Your task to perform on an android device: Where can I buy a nice beach tote? Image 0: 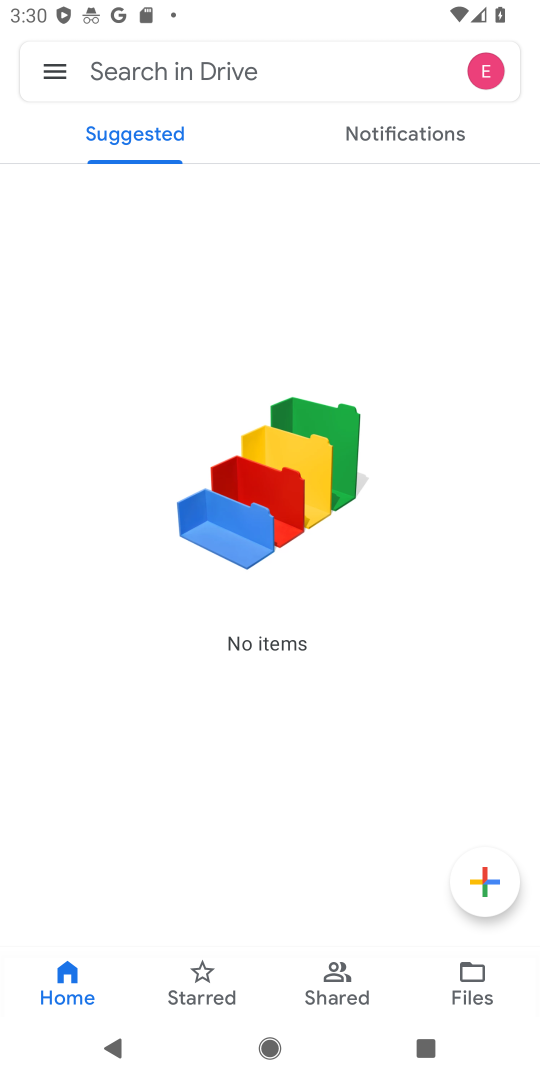
Step 0: press home button
Your task to perform on an android device: Where can I buy a nice beach tote? Image 1: 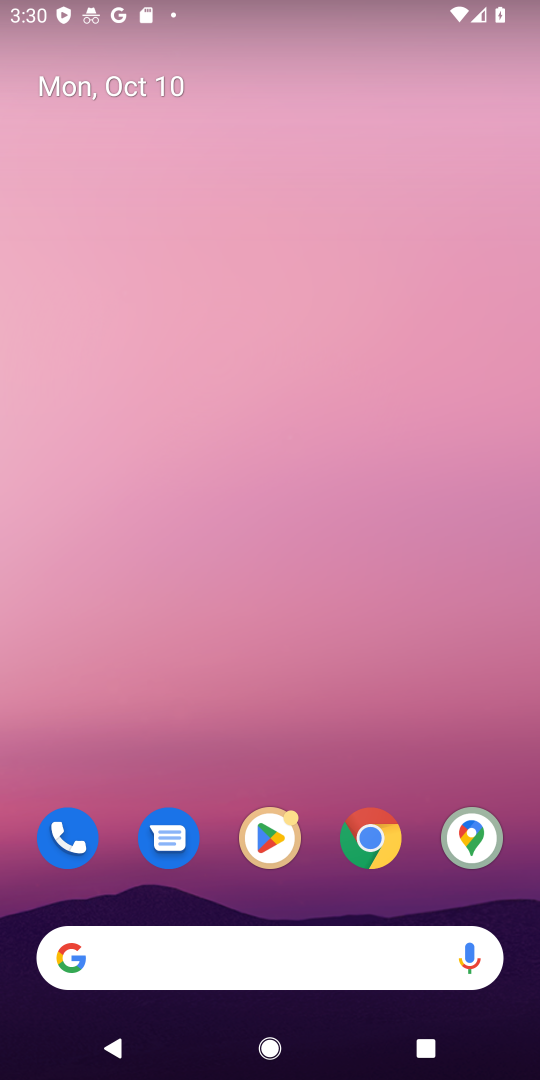
Step 1: click (301, 956)
Your task to perform on an android device: Where can I buy a nice beach tote? Image 2: 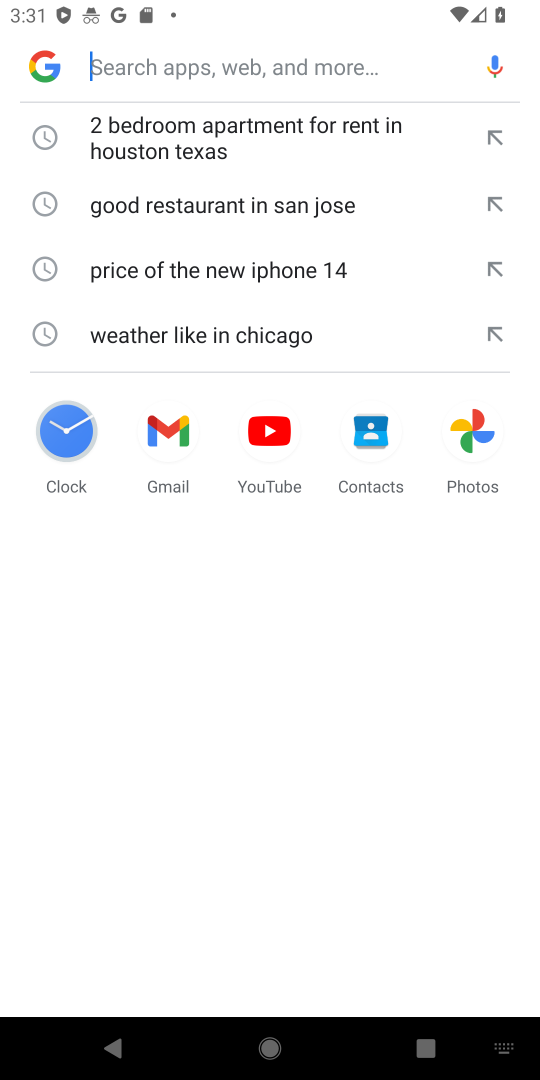
Step 2: type "buy a nice beach tote"
Your task to perform on an android device: Where can I buy a nice beach tote? Image 3: 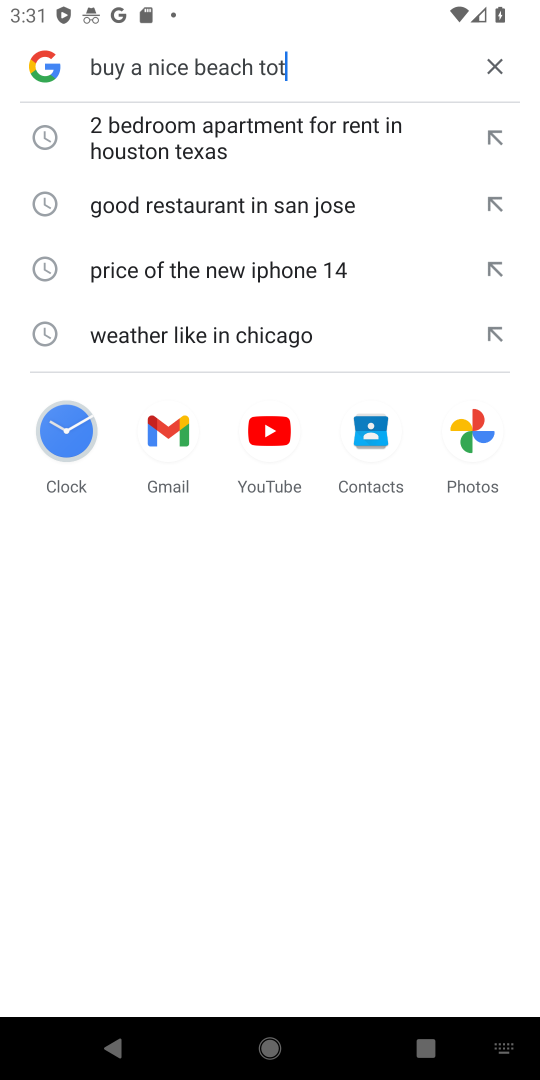
Step 3: type ""
Your task to perform on an android device: Where can I buy a nice beach tote? Image 4: 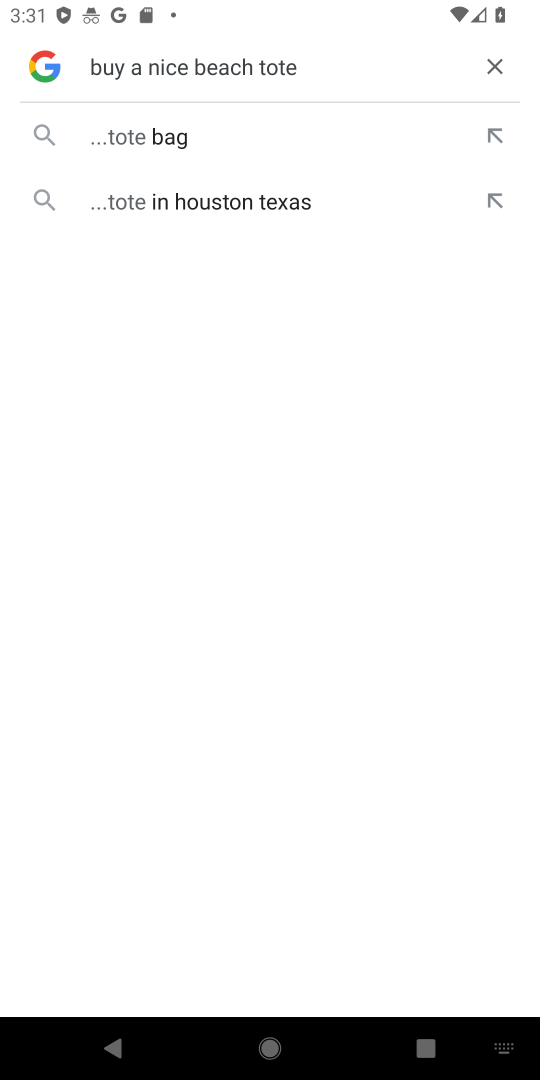
Step 4: click (223, 130)
Your task to perform on an android device: Where can I buy a nice beach tote? Image 5: 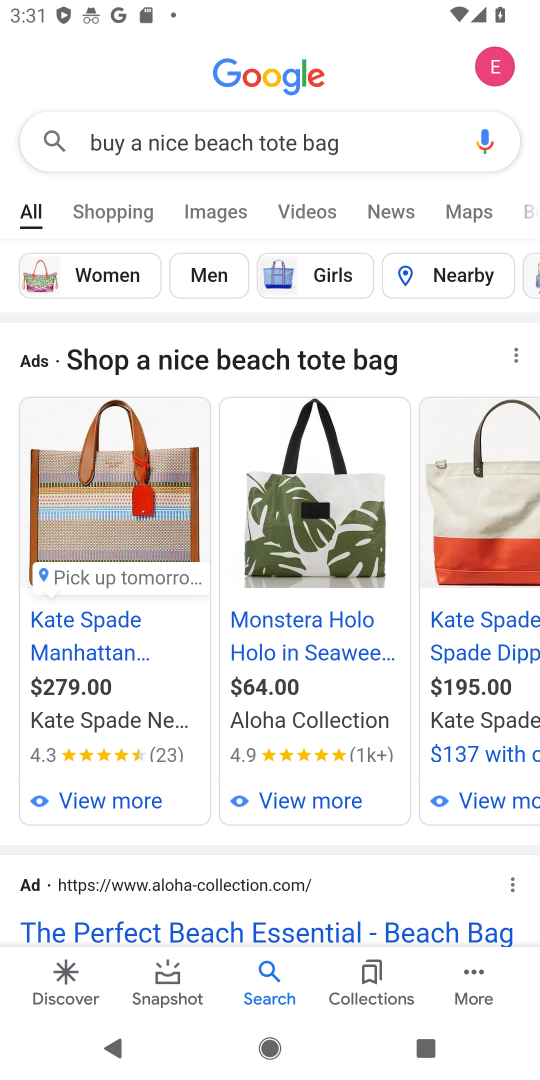
Step 5: task complete